Your task to perform on an android device: Open display settings Image 0: 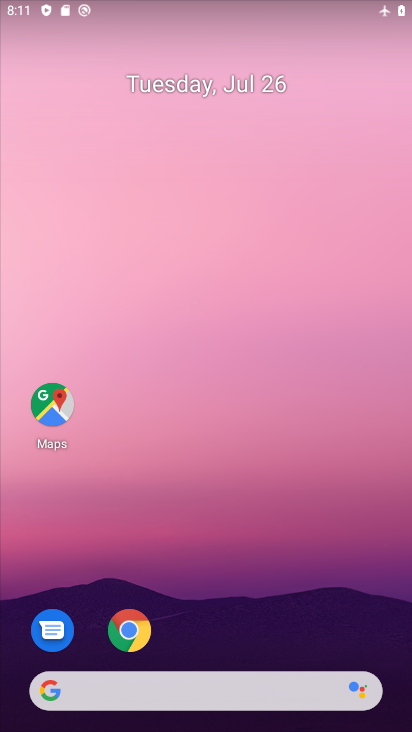
Step 0: drag from (303, 587) to (410, 169)
Your task to perform on an android device: Open display settings Image 1: 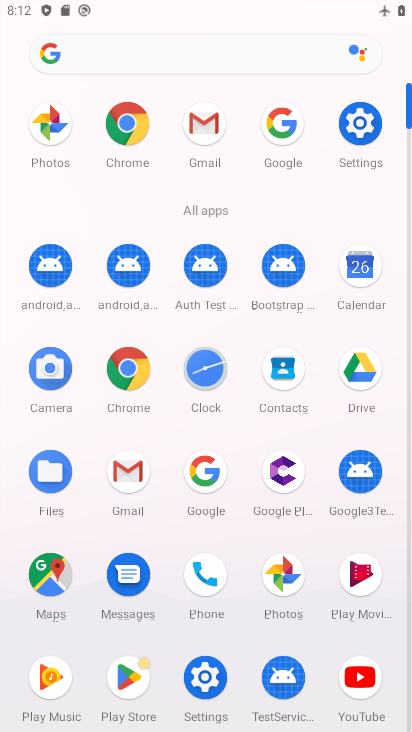
Step 1: click (359, 131)
Your task to perform on an android device: Open display settings Image 2: 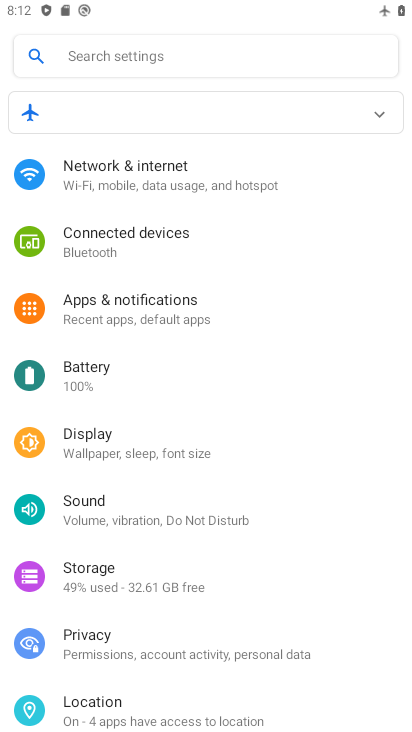
Step 2: click (88, 457)
Your task to perform on an android device: Open display settings Image 3: 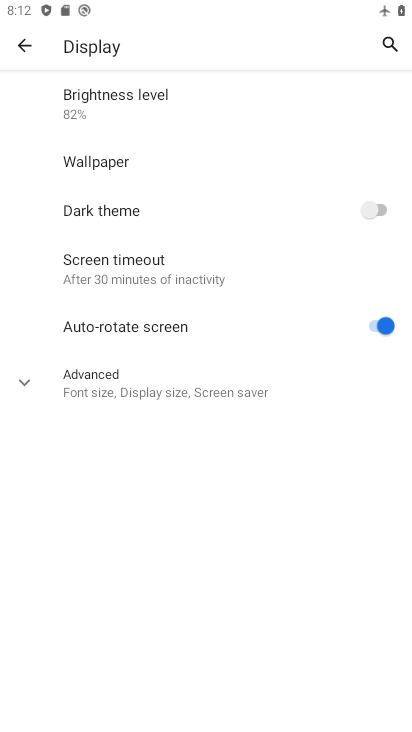
Step 3: task complete